Your task to perform on an android device: Go to Yahoo.com Image 0: 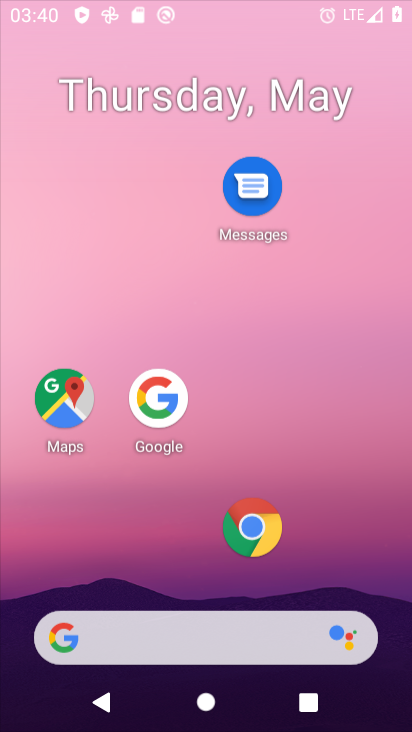
Step 0: drag from (267, 276) to (288, 119)
Your task to perform on an android device: Go to Yahoo.com Image 1: 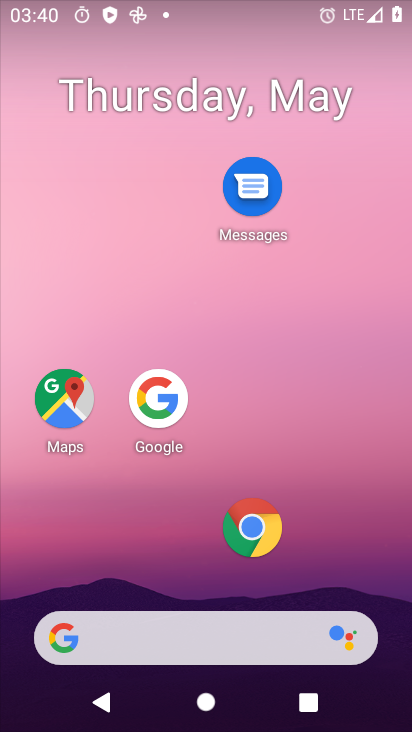
Step 1: drag from (167, 584) to (183, 88)
Your task to perform on an android device: Go to Yahoo.com Image 2: 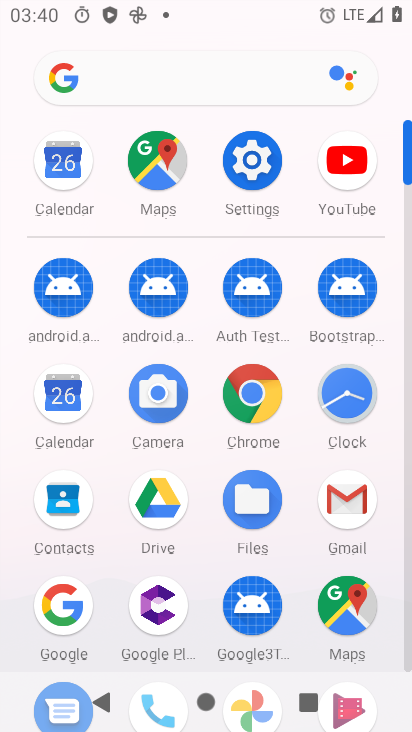
Step 2: click (230, 78)
Your task to perform on an android device: Go to Yahoo.com Image 3: 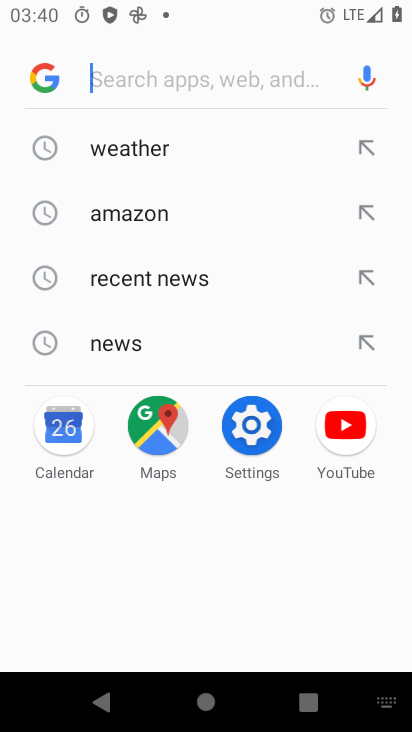
Step 3: type "Yahoo.com"
Your task to perform on an android device: Go to Yahoo.com Image 4: 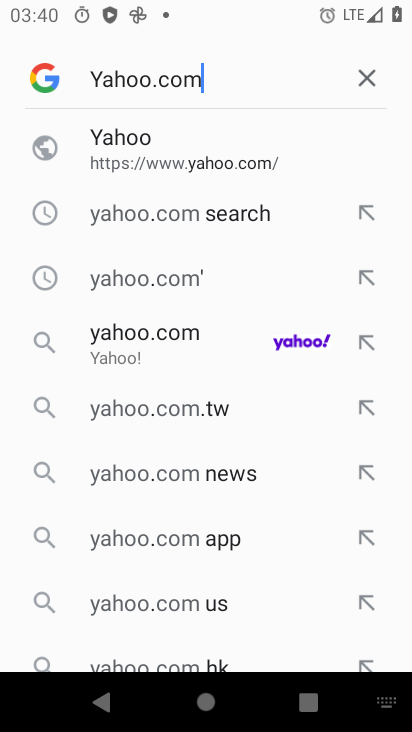
Step 4: click (158, 348)
Your task to perform on an android device: Go to Yahoo.com Image 5: 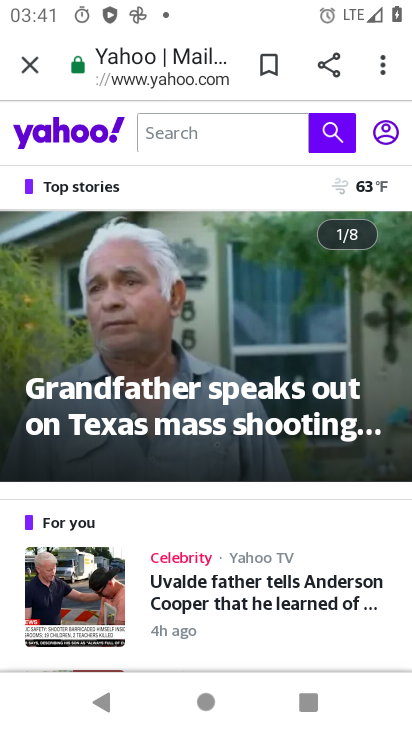
Step 5: task complete